Your task to perform on an android device: Go to internet settings Image 0: 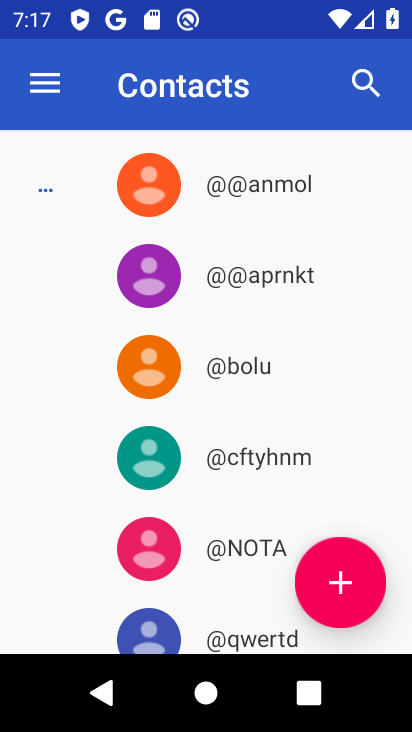
Step 0: press home button
Your task to perform on an android device: Go to internet settings Image 1: 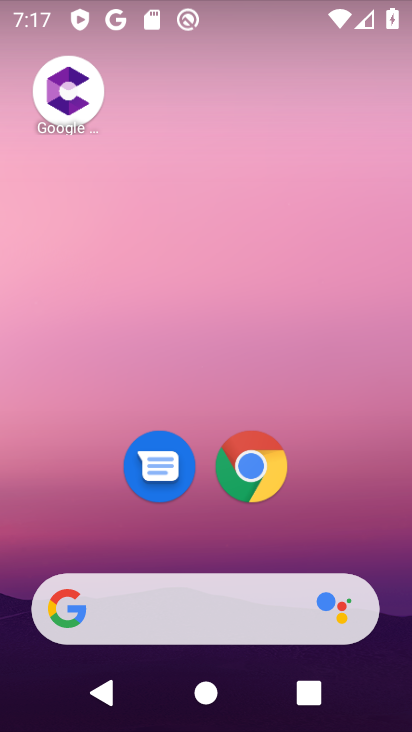
Step 1: drag from (148, 606) to (253, 151)
Your task to perform on an android device: Go to internet settings Image 2: 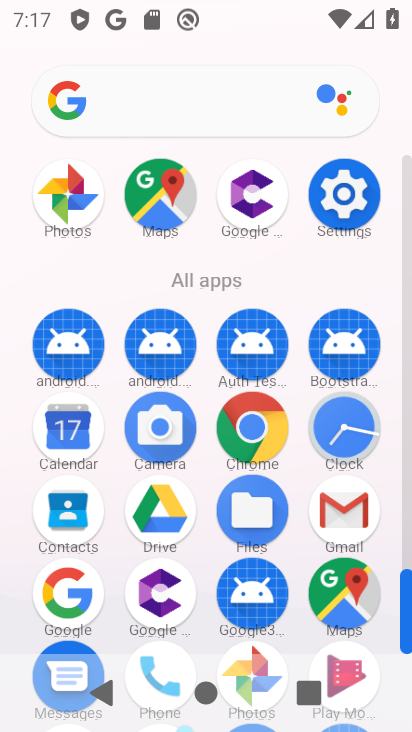
Step 2: click (336, 205)
Your task to perform on an android device: Go to internet settings Image 3: 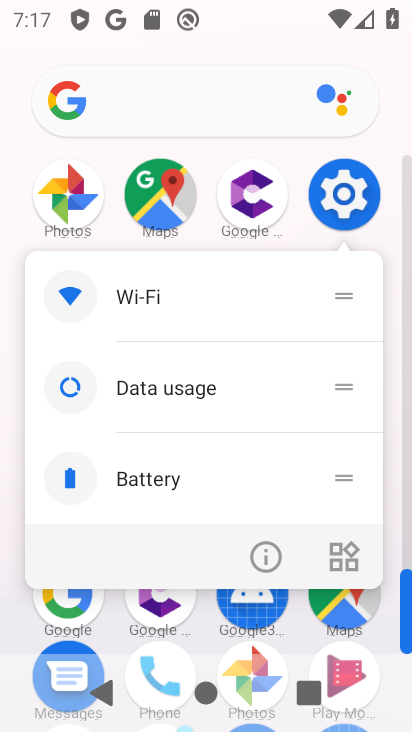
Step 3: click (342, 196)
Your task to perform on an android device: Go to internet settings Image 4: 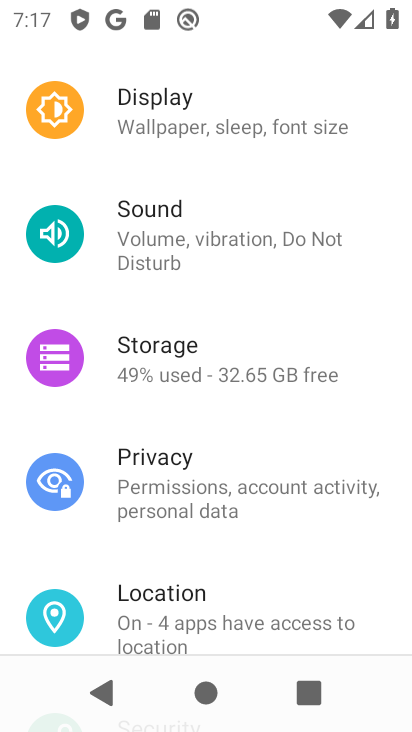
Step 4: drag from (327, 86) to (278, 557)
Your task to perform on an android device: Go to internet settings Image 5: 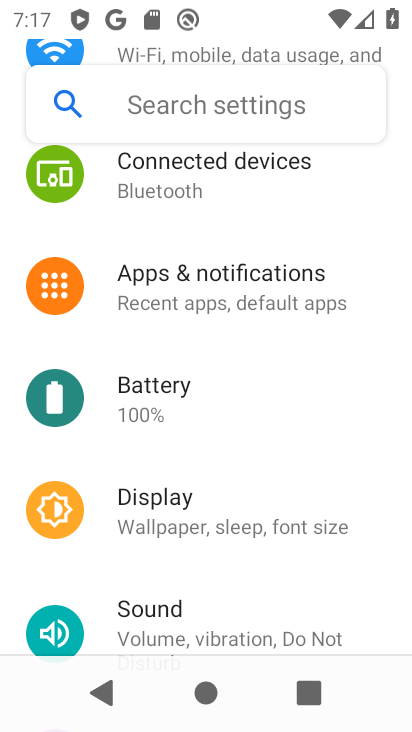
Step 5: drag from (329, 220) to (262, 619)
Your task to perform on an android device: Go to internet settings Image 6: 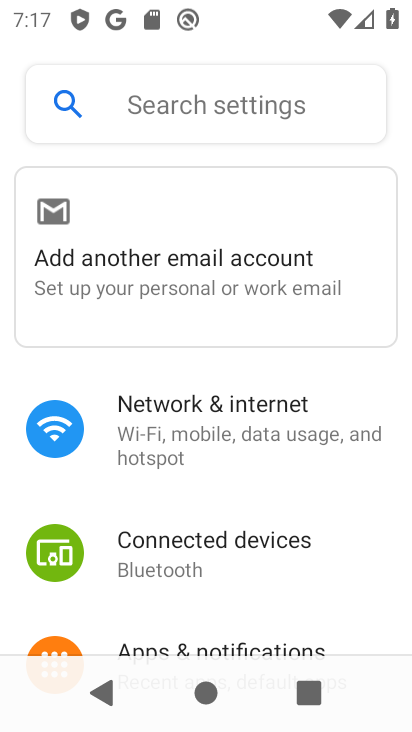
Step 6: click (249, 411)
Your task to perform on an android device: Go to internet settings Image 7: 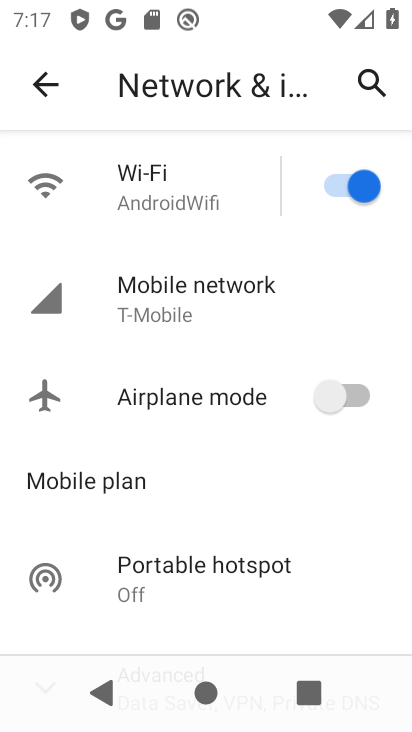
Step 7: task complete